Your task to perform on an android device: delete location history Image 0: 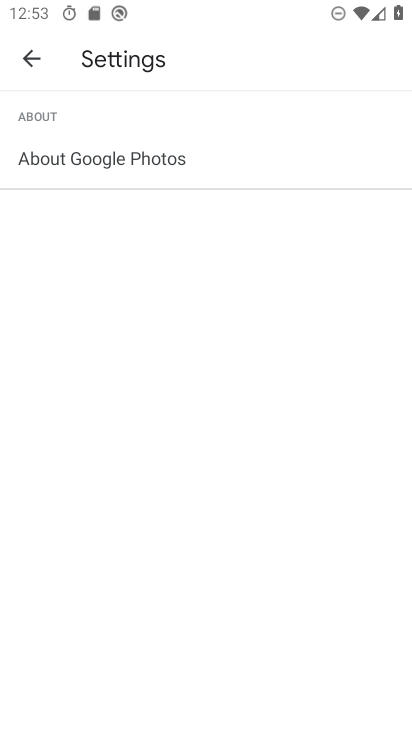
Step 0: press home button
Your task to perform on an android device: delete location history Image 1: 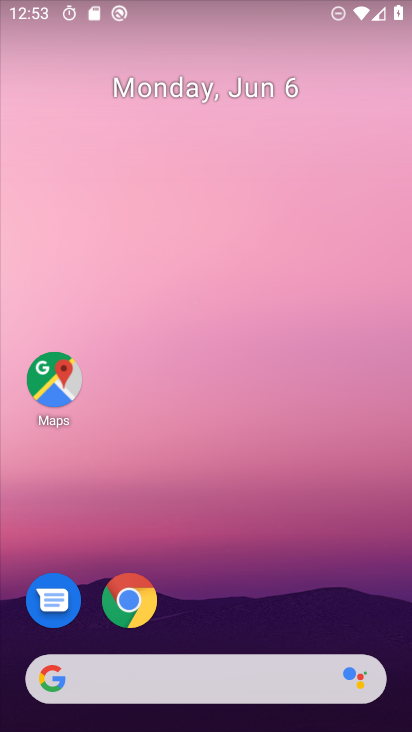
Step 1: drag from (232, 636) to (224, 240)
Your task to perform on an android device: delete location history Image 2: 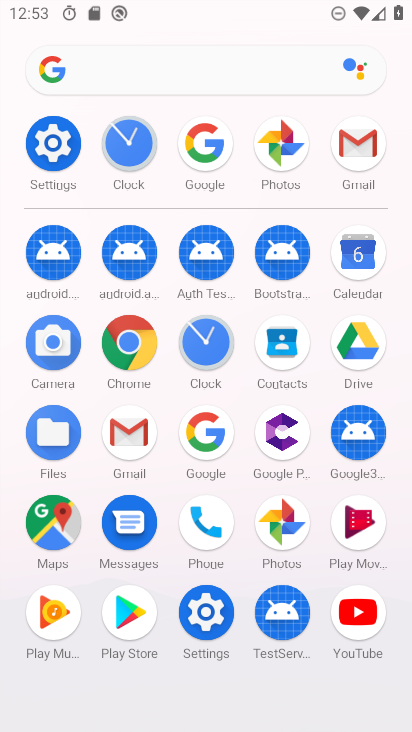
Step 2: click (55, 527)
Your task to perform on an android device: delete location history Image 3: 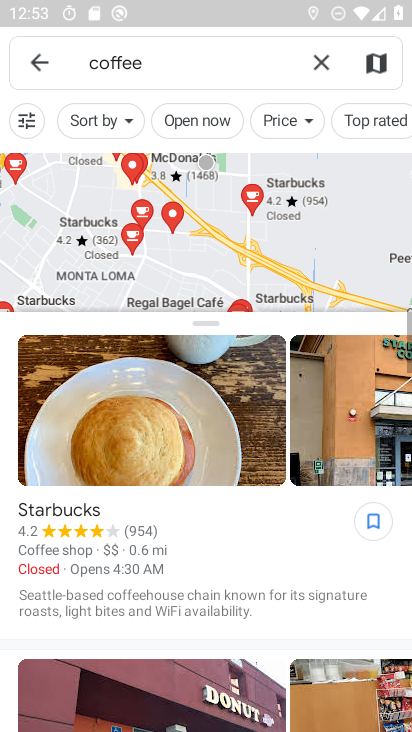
Step 3: click (52, 48)
Your task to perform on an android device: delete location history Image 4: 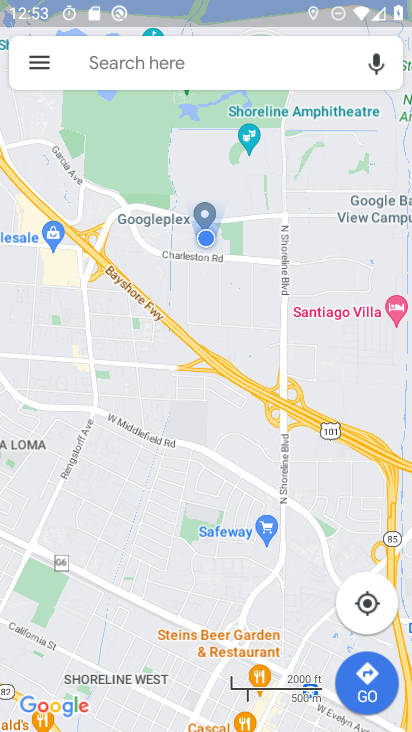
Step 4: click (35, 65)
Your task to perform on an android device: delete location history Image 5: 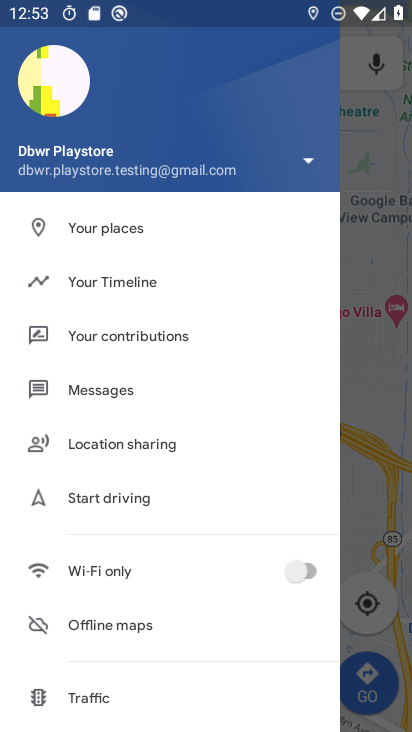
Step 5: click (121, 281)
Your task to perform on an android device: delete location history Image 6: 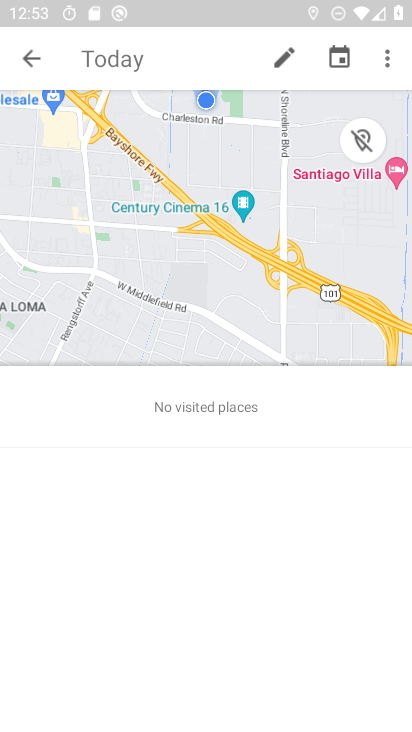
Step 6: click (386, 67)
Your task to perform on an android device: delete location history Image 7: 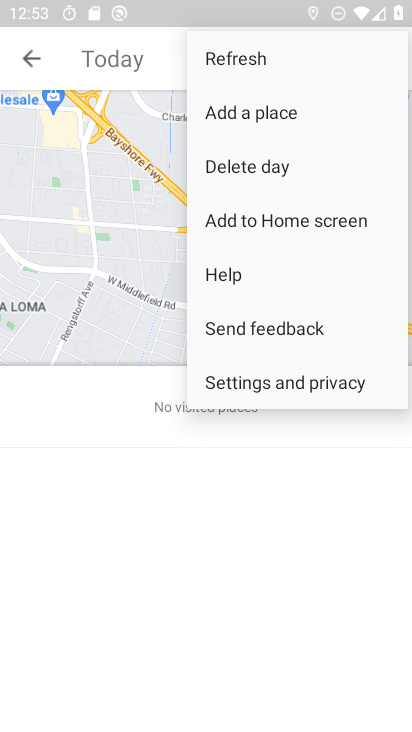
Step 7: click (294, 382)
Your task to perform on an android device: delete location history Image 8: 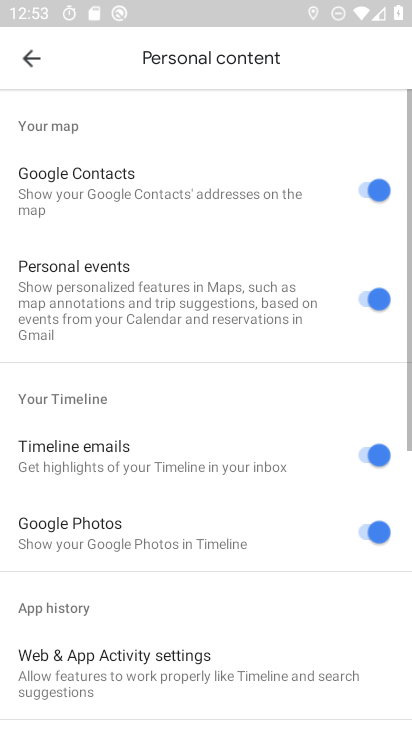
Step 8: drag from (235, 626) to (253, 240)
Your task to perform on an android device: delete location history Image 9: 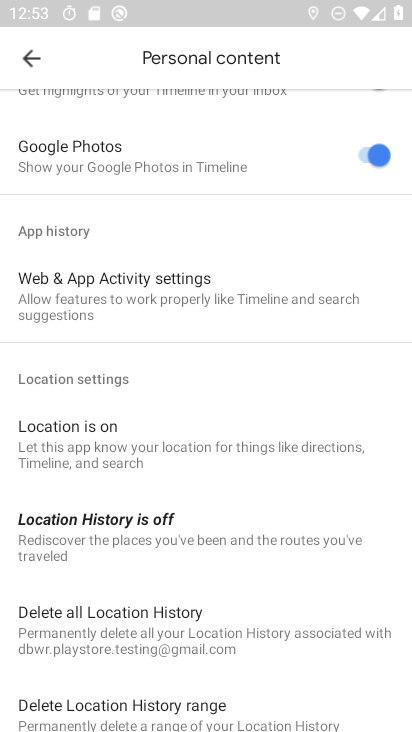
Step 9: click (185, 608)
Your task to perform on an android device: delete location history Image 10: 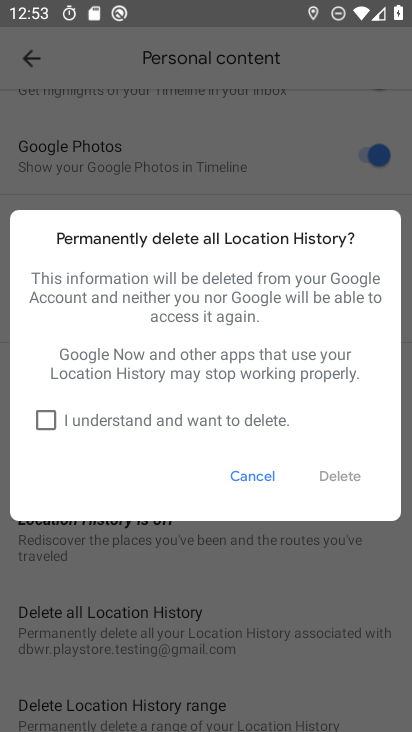
Step 10: click (252, 427)
Your task to perform on an android device: delete location history Image 11: 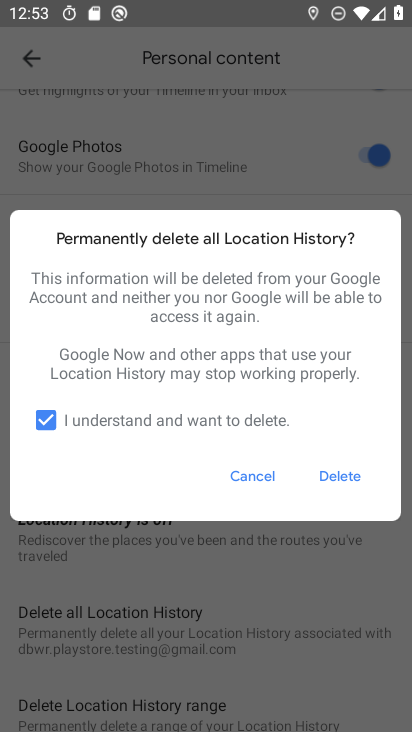
Step 11: click (349, 480)
Your task to perform on an android device: delete location history Image 12: 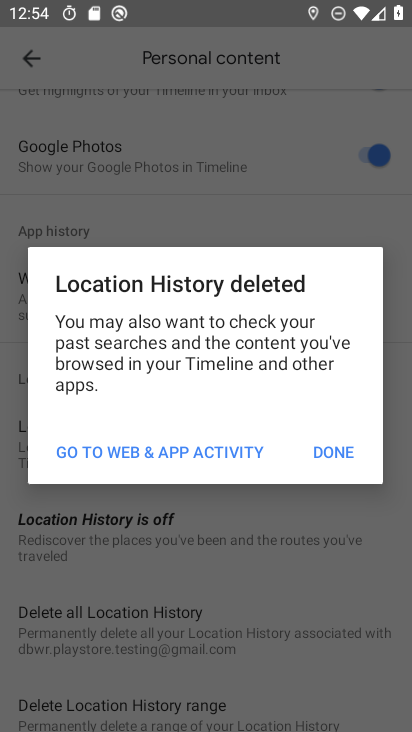
Step 12: task complete